Your task to perform on an android device: turn off airplane mode Image 0: 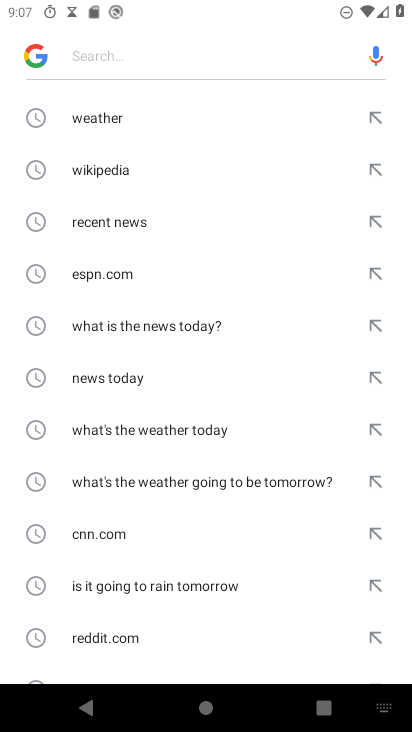
Step 0: press home button
Your task to perform on an android device: turn off airplane mode Image 1: 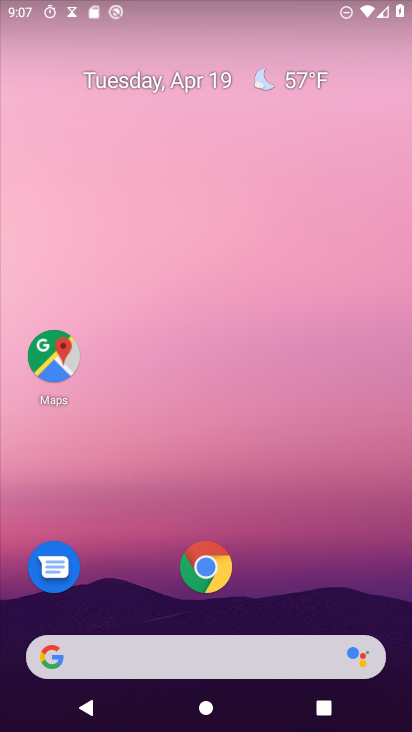
Step 1: drag from (270, 556) to (294, 149)
Your task to perform on an android device: turn off airplane mode Image 2: 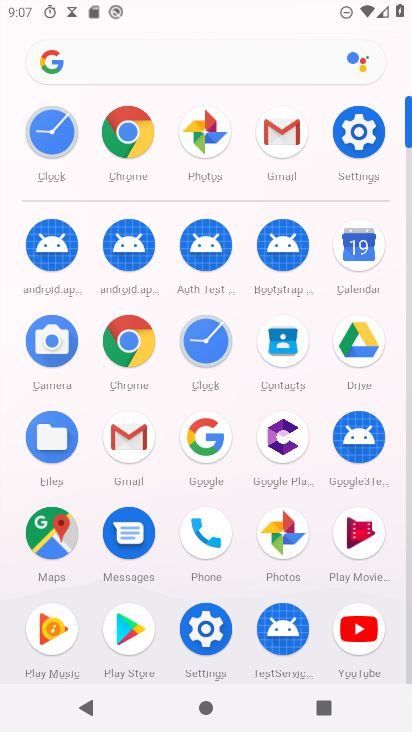
Step 2: click (356, 133)
Your task to perform on an android device: turn off airplane mode Image 3: 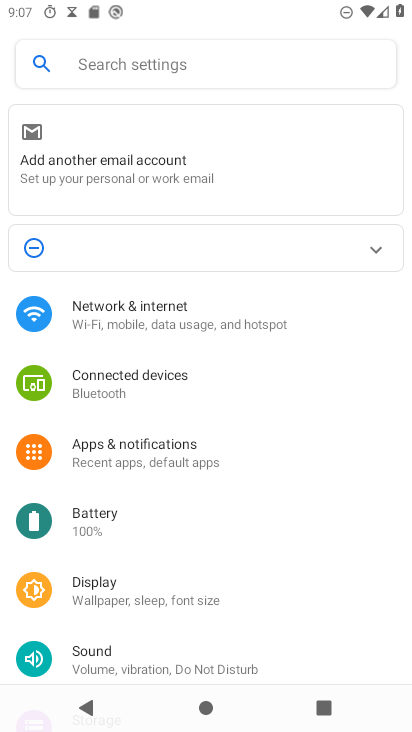
Step 3: click (84, 308)
Your task to perform on an android device: turn off airplane mode Image 4: 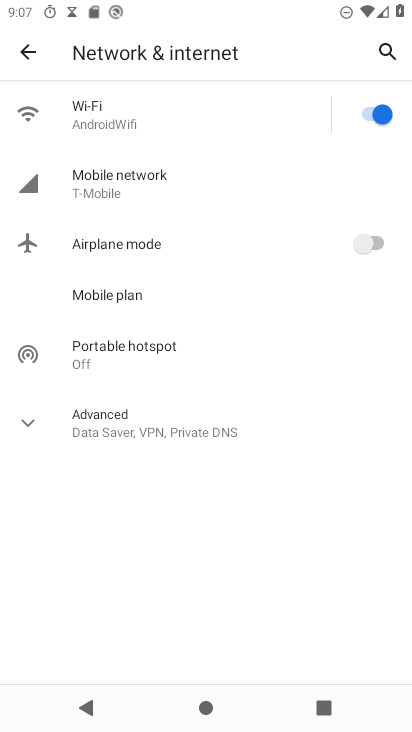
Step 4: task complete